Your task to perform on an android device: turn on wifi Image 0: 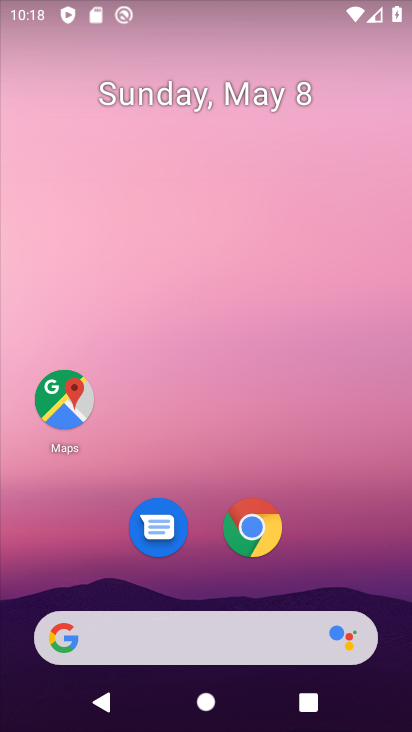
Step 0: drag from (338, 479) to (293, 29)
Your task to perform on an android device: turn on wifi Image 1: 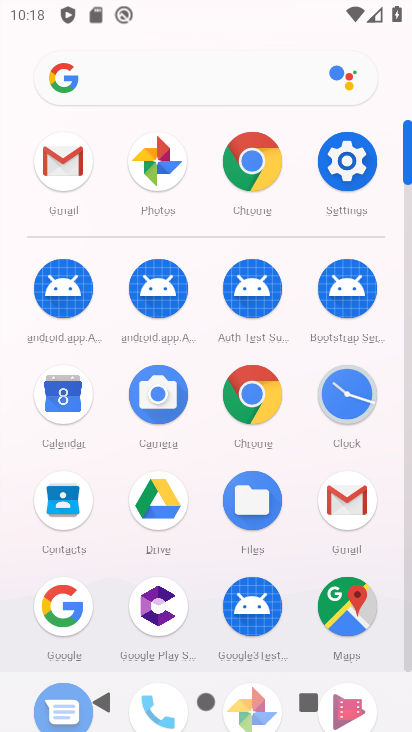
Step 1: click (346, 157)
Your task to perform on an android device: turn on wifi Image 2: 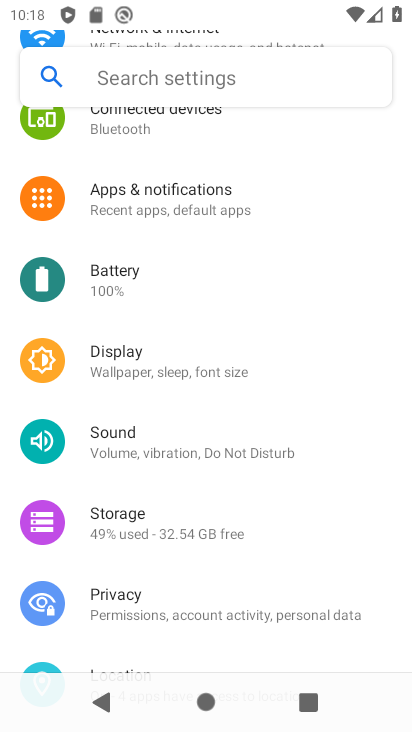
Step 2: drag from (186, 182) to (89, 570)
Your task to perform on an android device: turn on wifi Image 3: 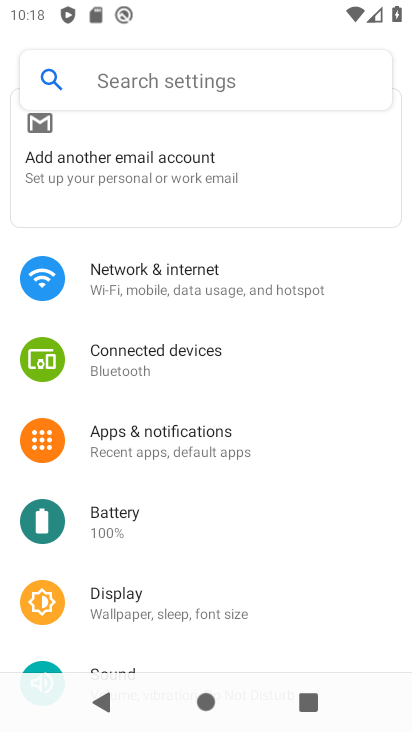
Step 3: click (141, 288)
Your task to perform on an android device: turn on wifi Image 4: 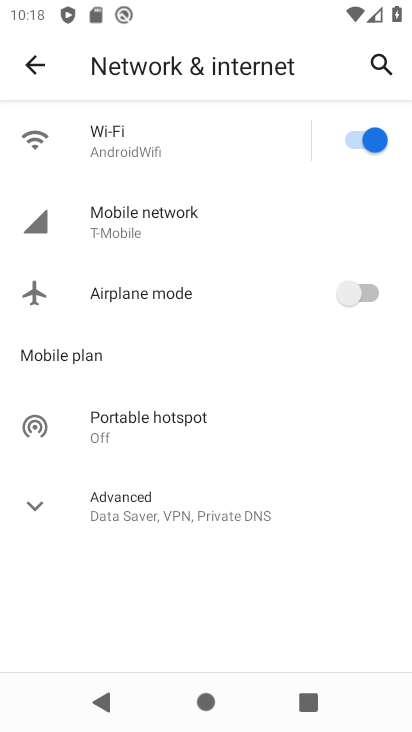
Step 4: click (175, 144)
Your task to perform on an android device: turn on wifi Image 5: 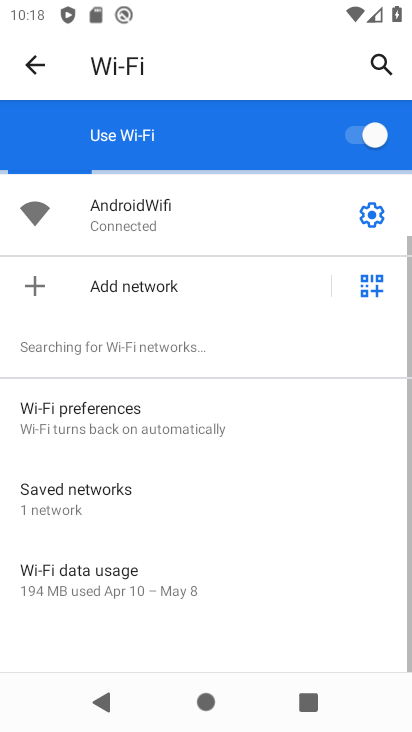
Step 5: task complete